Your task to perform on an android device: Search for "apple airpods pro" on amazon, select the first entry, add it to the cart, then select checkout. Image 0: 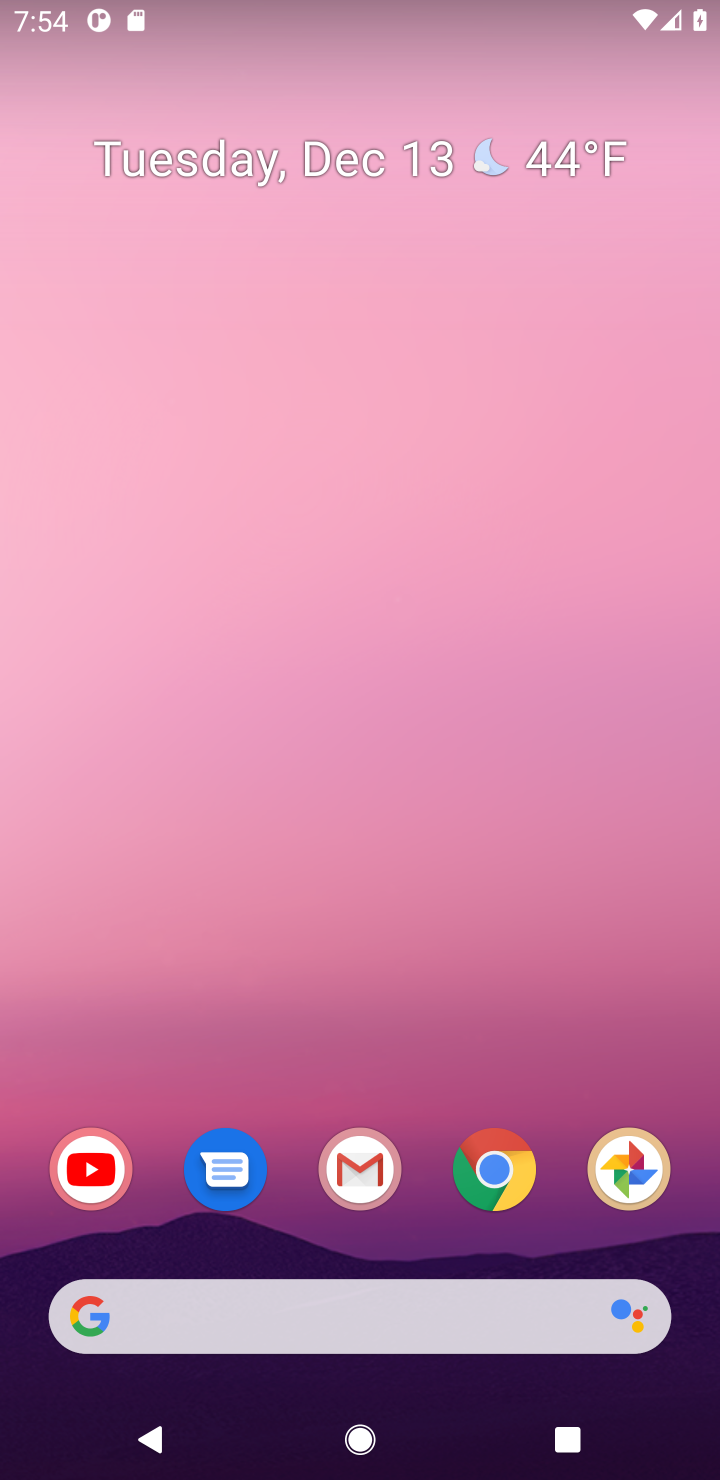
Step 0: click (509, 1214)
Your task to perform on an android device: Search for "apple airpods pro" on amazon, select the first entry, add it to the cart, then select checkout. Image 1: 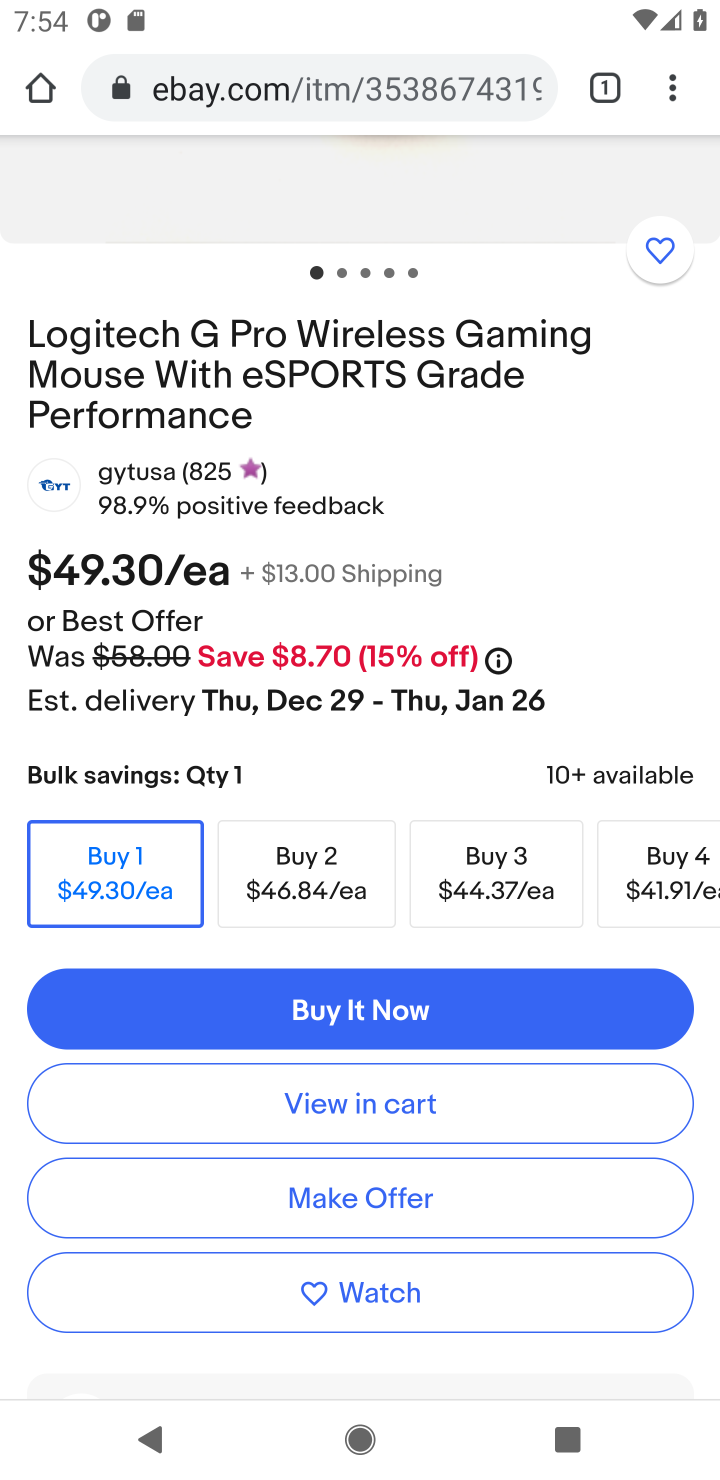
Step 1: click (313, 77)
Your task to perform on an android device: Search for "apple airpods pro" on amazon, select the first entry, add it to the cart, then select checkout. Image 2: 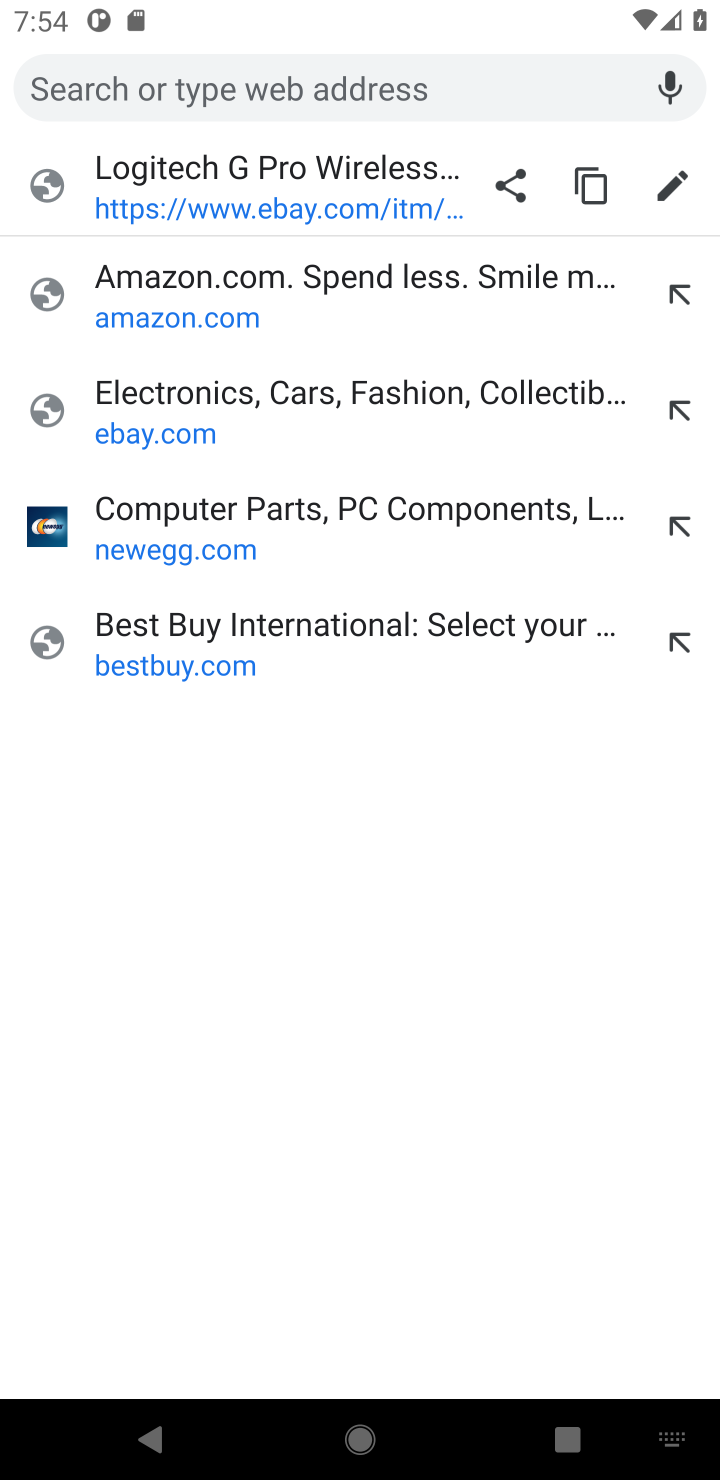
Step 2: type "amazon"
Your task to perform on an android device: Search for "apple airpods pro" on amazon, select the first entry, add it to the cart, then select checkout. Image 3: 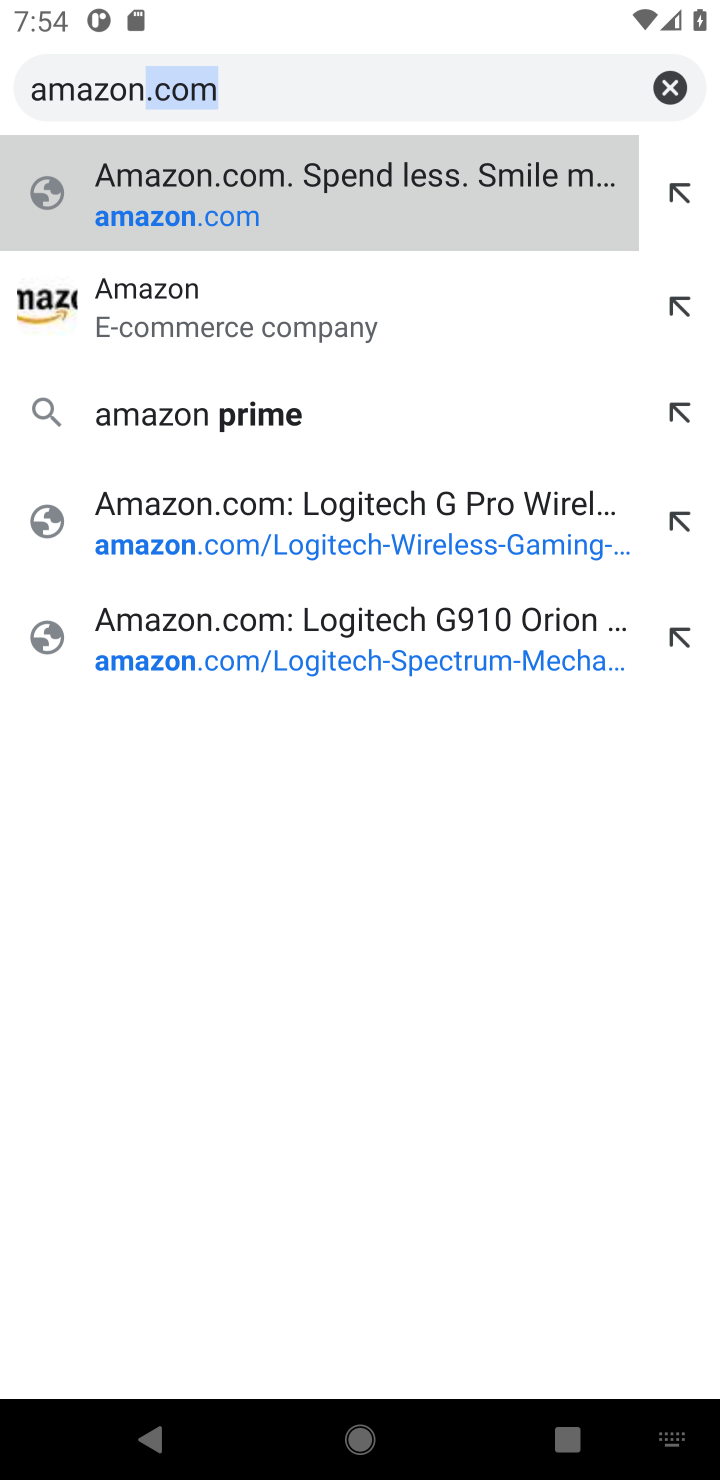
Step 3: click (240, 307)
Your task to perform on an android device: Search for "apple airpods pro" on amazon, select the first entry, add it to the cart, then select checkout. Image 4: 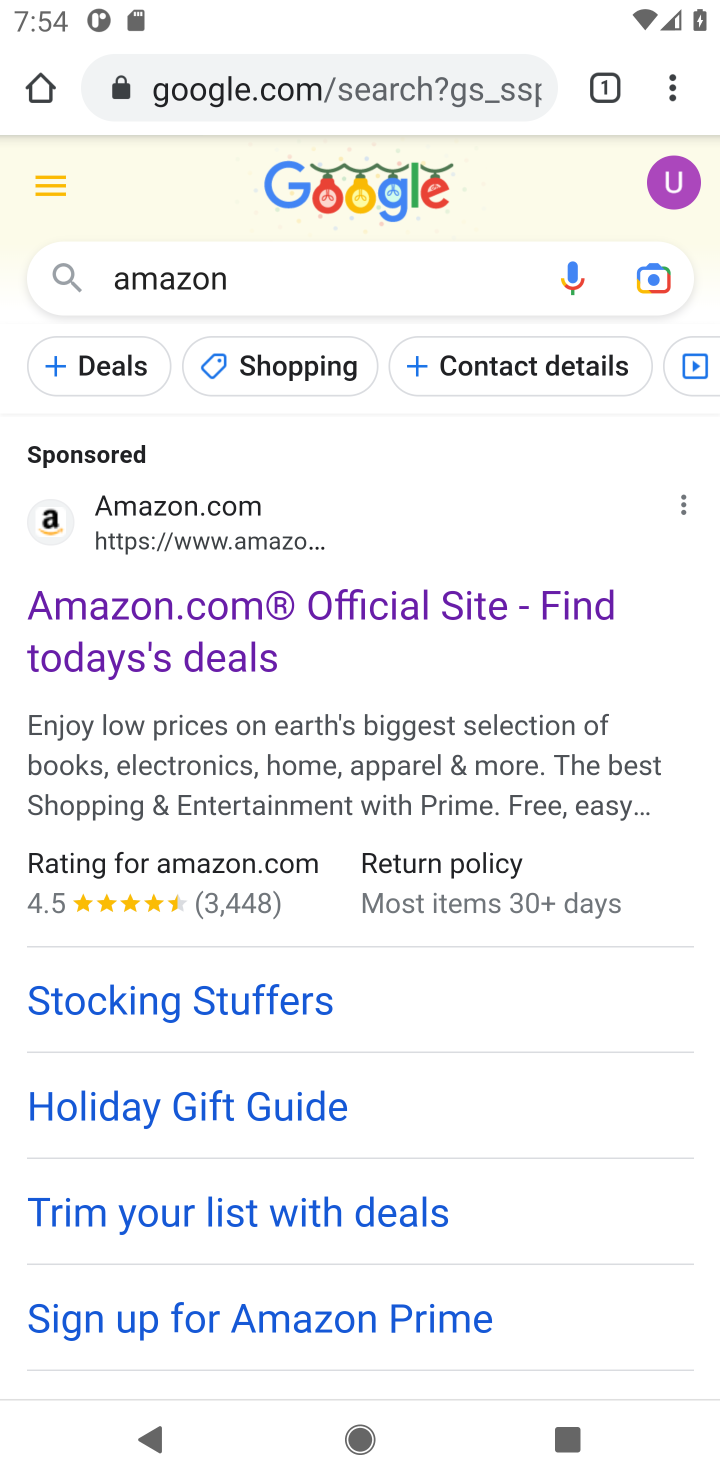
Step 4: click (246, 598)
Your task to perform on an android device: Search for "apple airpods pro" on amazon, select the first entry, add it to the cart, then select checkout. Image 5: 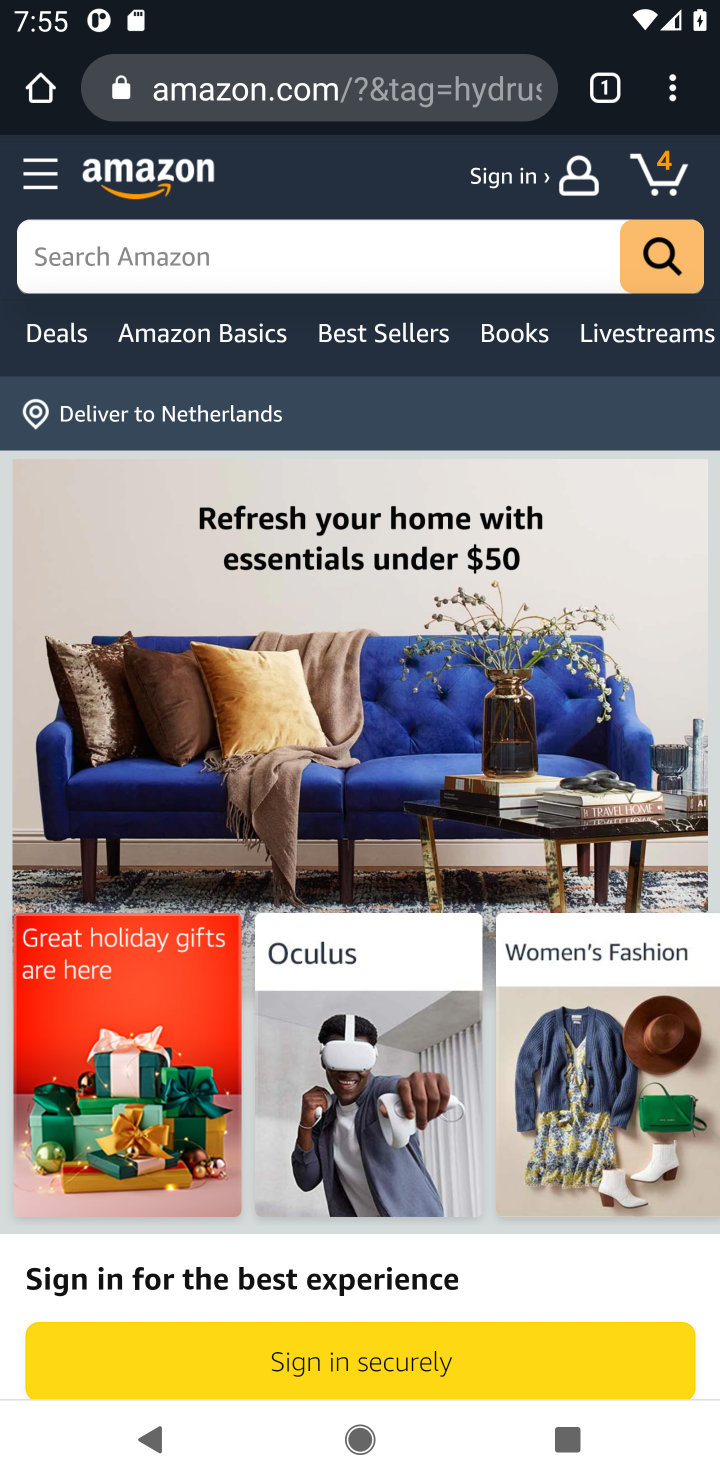
Step 5: click (140, 256)
Your task to perform on an android device: Search for "apple airpods pro" on amazon, select the first entry, add it to the cart, then select checkout. Image 6: 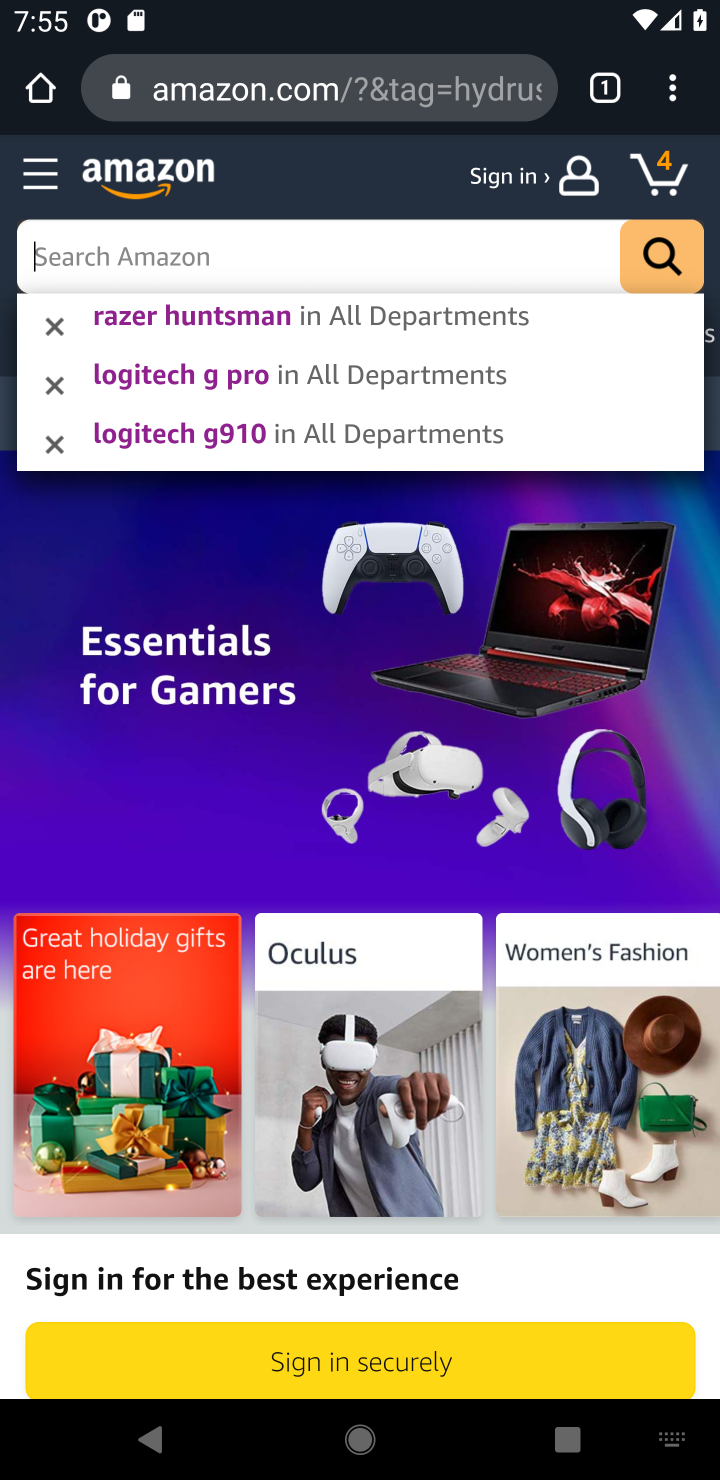
Step 6: type "apple airpod pro"
Your task to perform on an android device: Search for "apple airpods pro" on amazon, select the first entry, add it to the cart, then select checkout. Image 7: 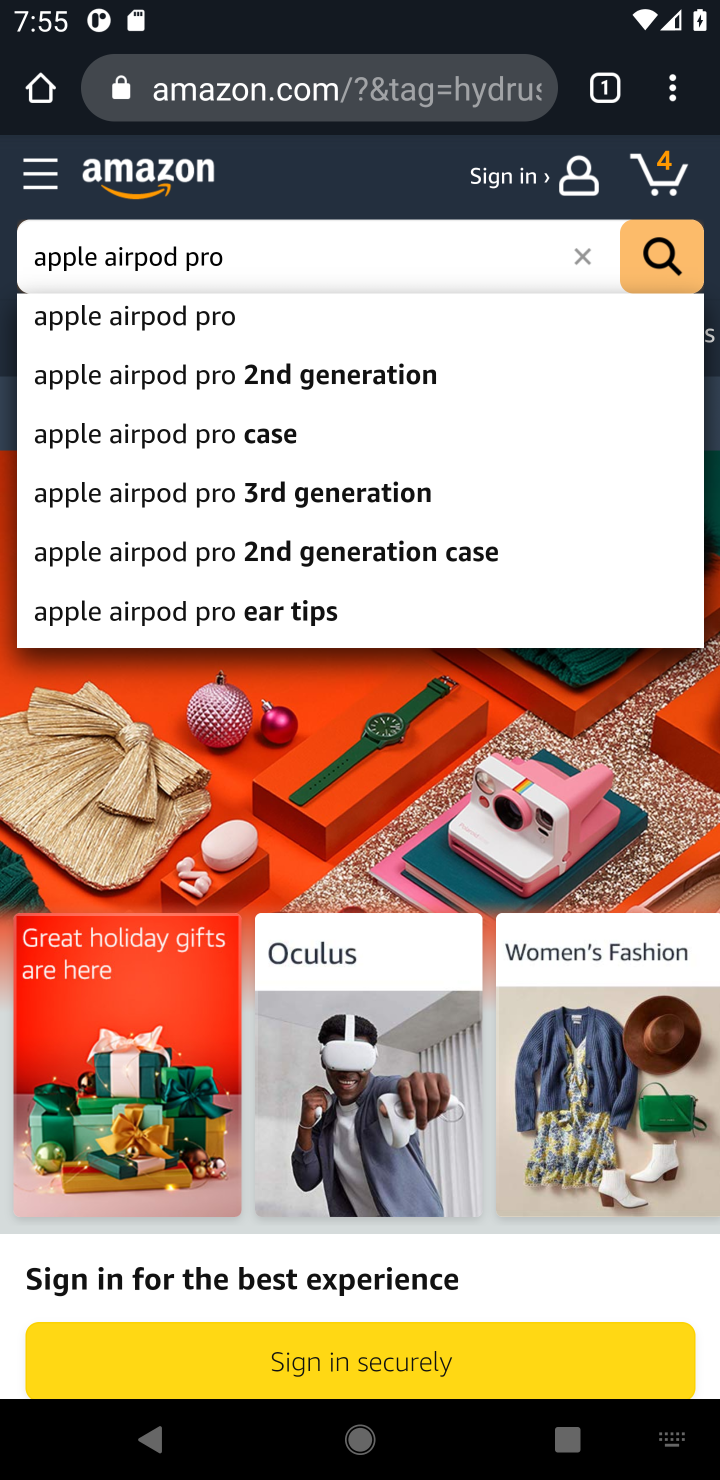
Step 7: click (652, 277)
Your task to perform on an android device: Search for "apple airpods pro" on amazon, select the first entry, add it to the cart, then select checkout. Image 8: 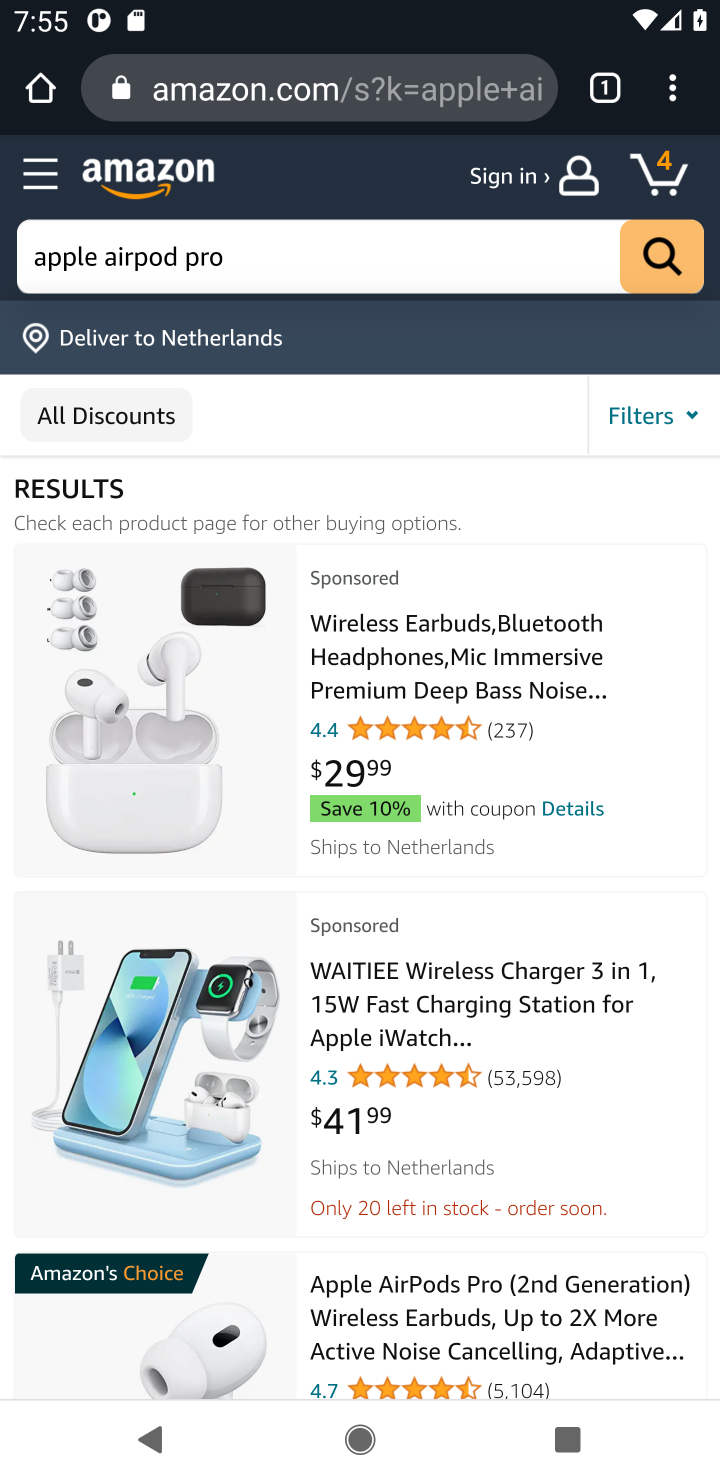
Step 8: click (608, 776)
Your task to perform on an android device: Search for "apple airpods pro" on amazon, select the first entry, add it to the cart, then select checkout. Image 9: 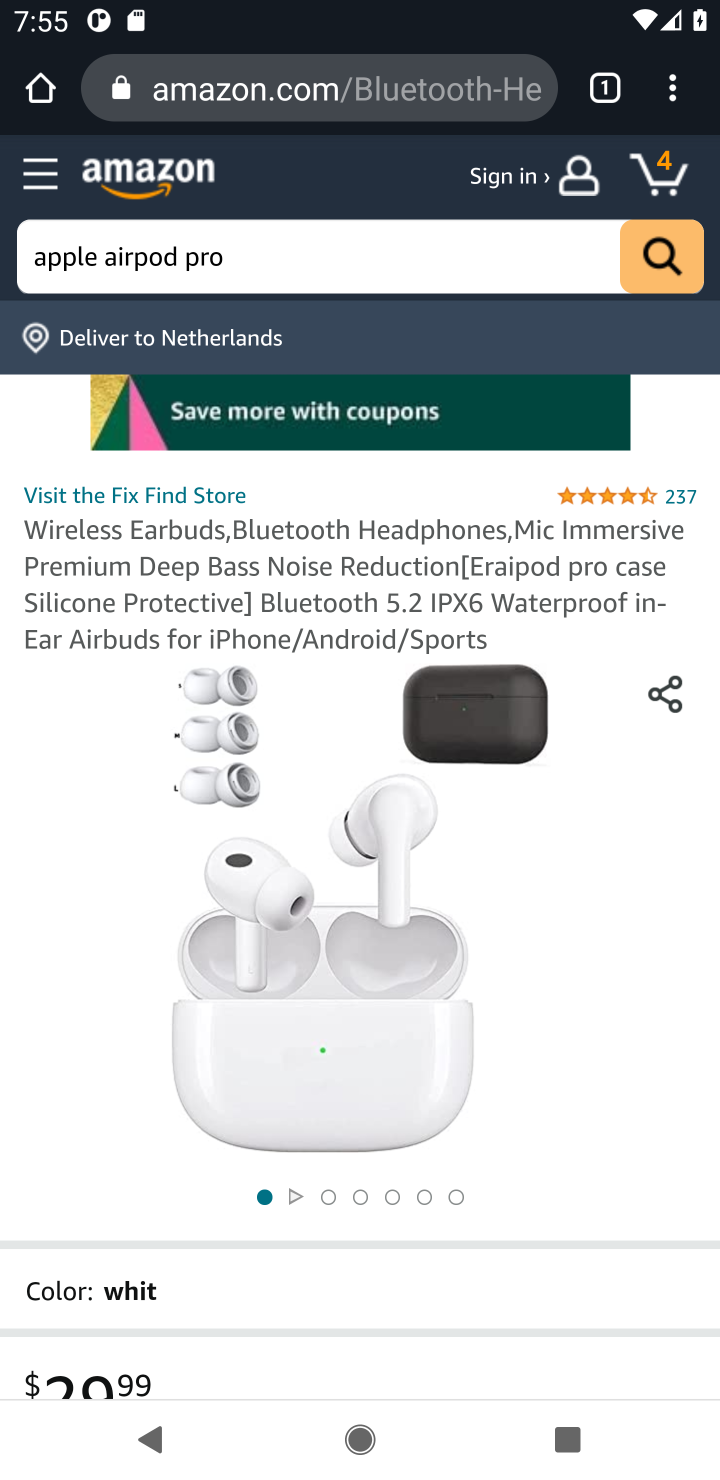
Step 9: drag from (557, 1132) to (562, 684)
Your task to perform on an android device: Search for "apple airpods pro" on amazon, select the first entry, add it to the cart, then select checkout. Image 10: 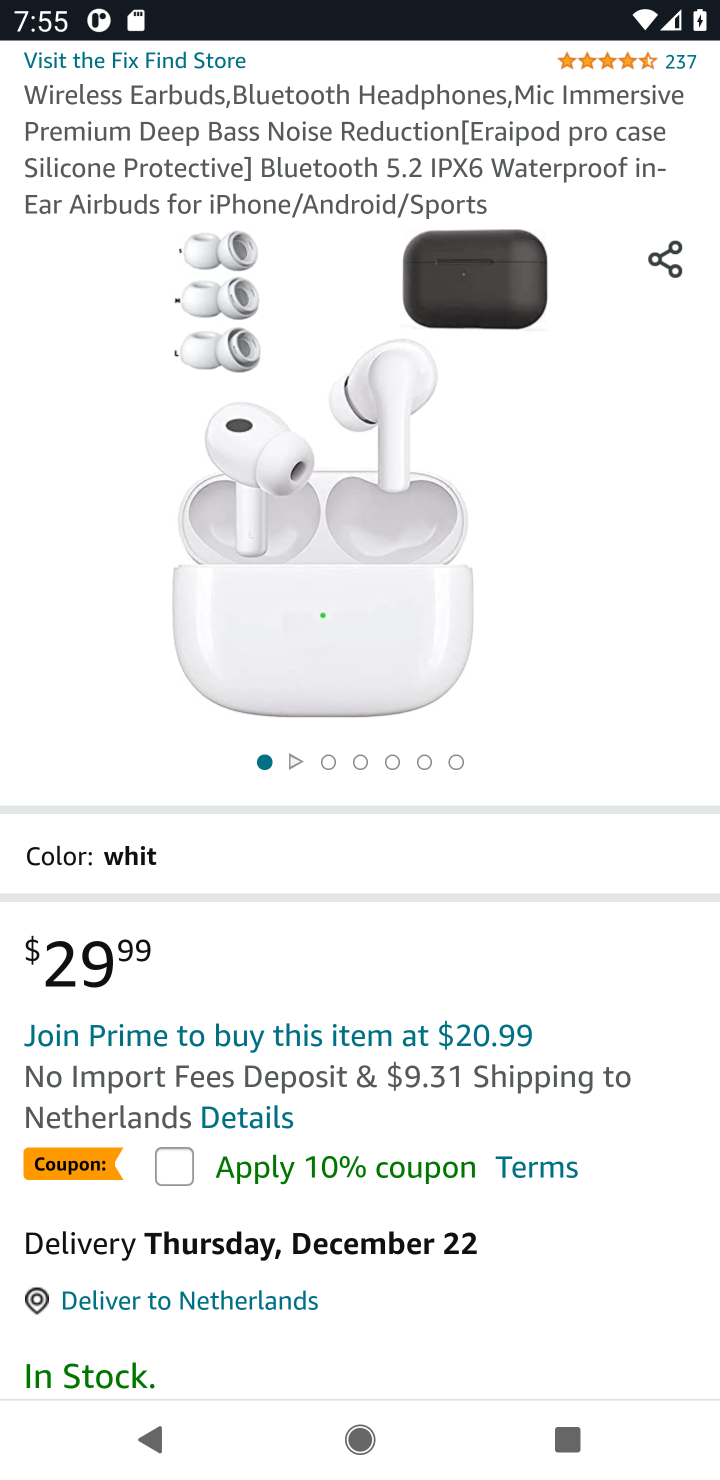
Step 10: drag from (495, 1293) to (480, 749)
Your task to perform on an android device: Search for "apple airpods pro" on amazon, select the first entry, add it to the cart, then select checkout. Image 11: 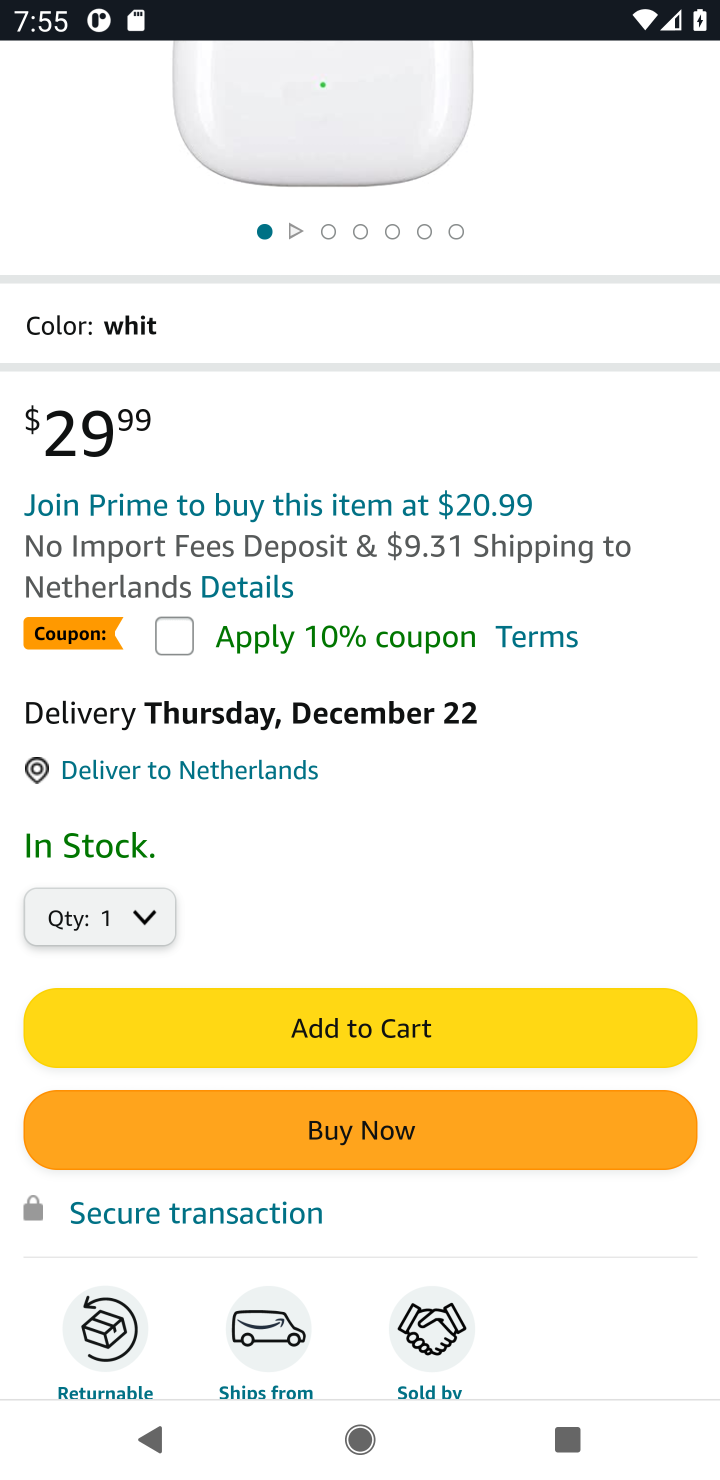
Step 11: click (490, 1061)
Your task to perform on an android device: Search for "apple airpods pro" on amazon, select the first entry, add it to the cart, then select checkout. Image 12: 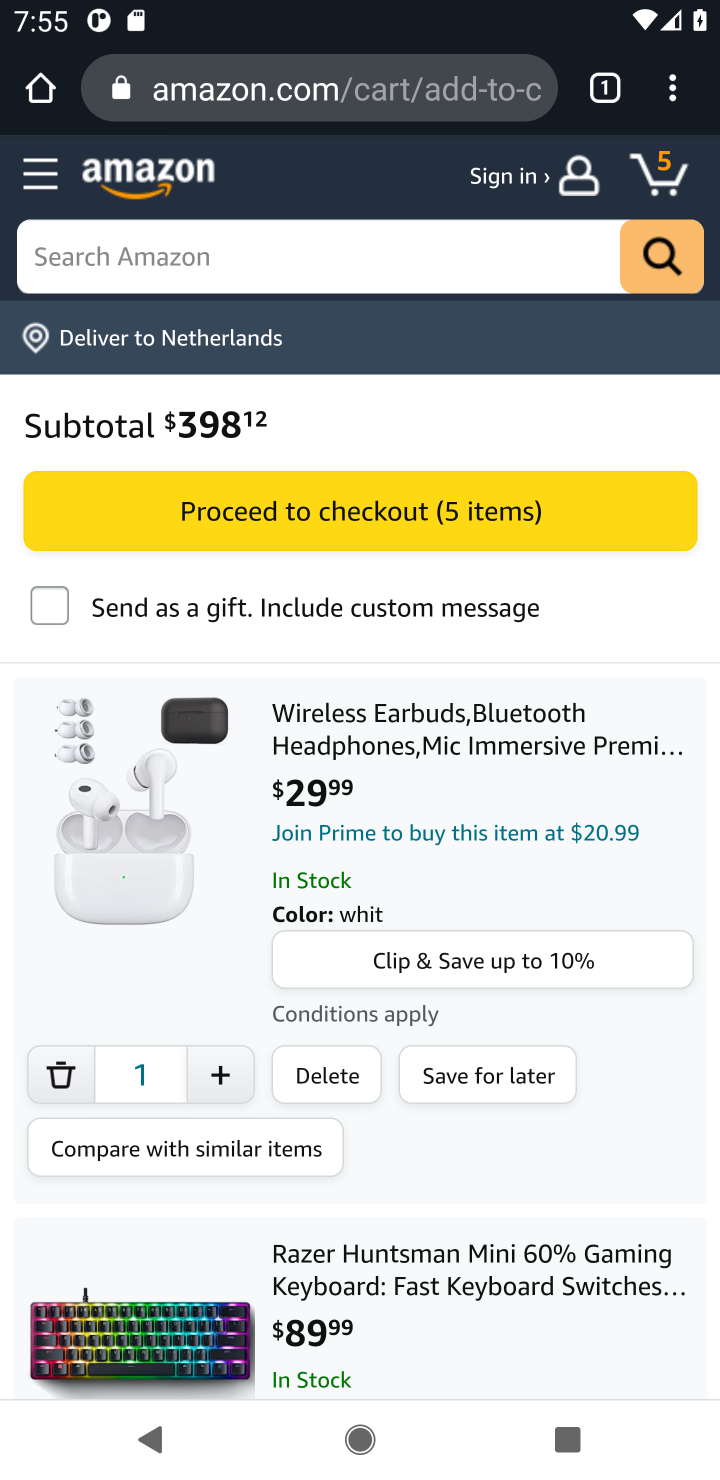
Step 12: task complete